Your task to perform on an android device: turn off picture-in-picture Image 0: 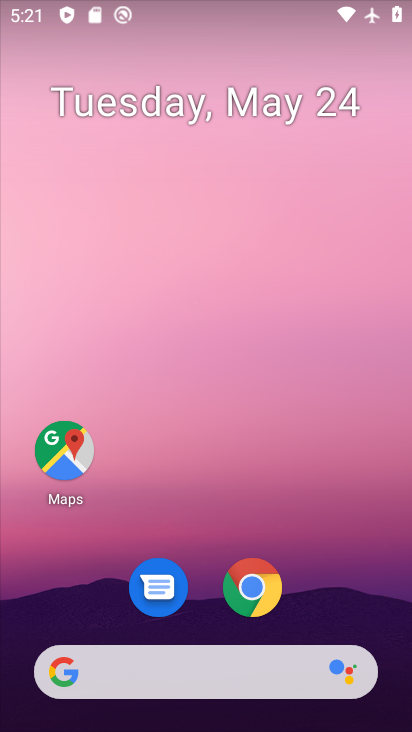
Step 0: drag from (354, 595) to (276, 78)
Your task to perform on an android device: turn off picture-in-picture Image 1: 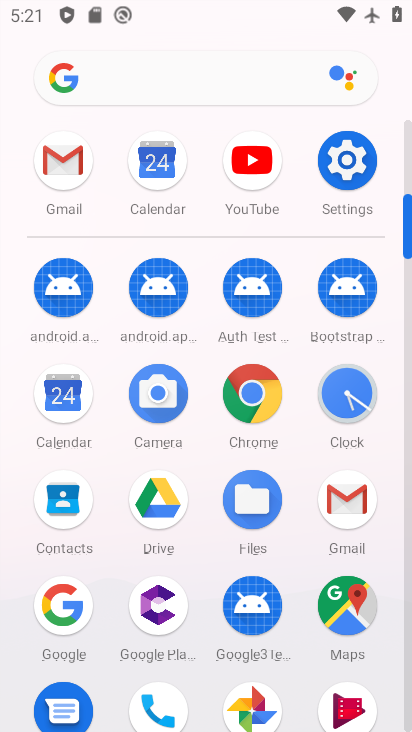
Step 1: click (358, 177)
Your task to perform on an android device: turn off picture-in-picture Image 2: 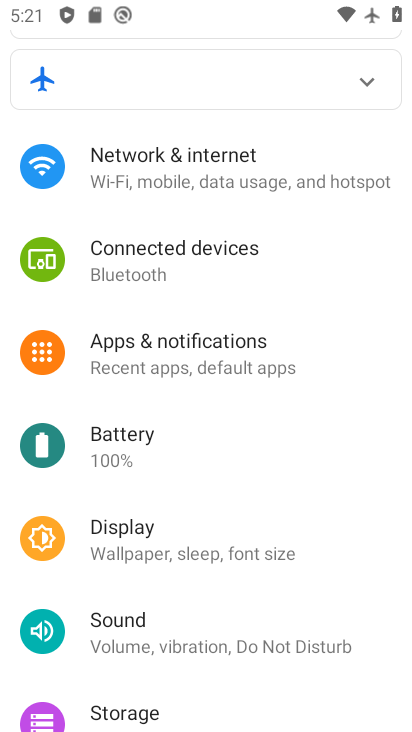
Step 2: click (226, 362)
Your task to perform on an android device: turn off picture-in-picture Image 3: 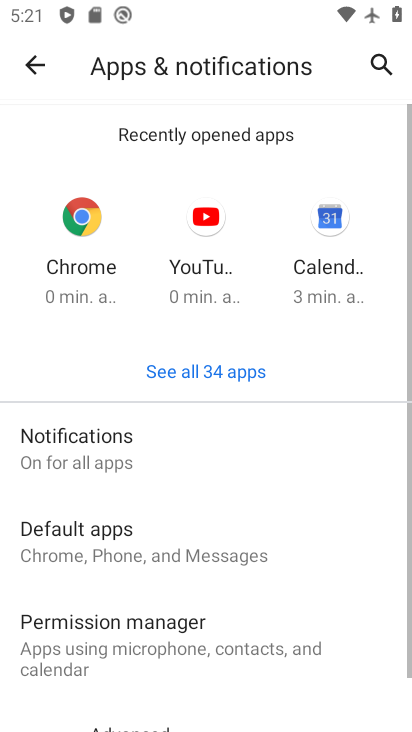
Step 3: drag from (265, 630) to (256, 196)
Your task to perform on an android device: turn off picture-in-picture Image 4: 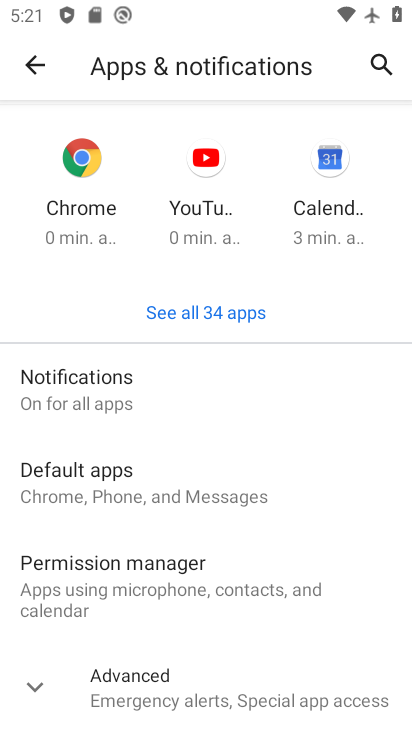
Step 4: click (218, 690)
Your task to perform on an android device: turn off picture-in-picture Image 5: 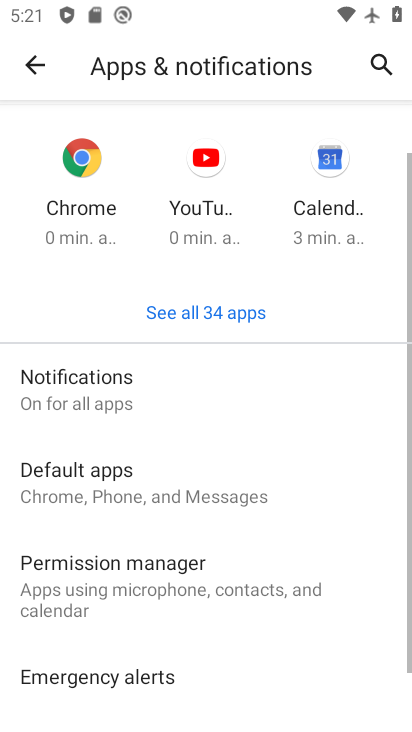
Step 5: drag from (231, 683) to (127, 109)
Your task to perform on an android device: turn off picture-in-picture Image 6: 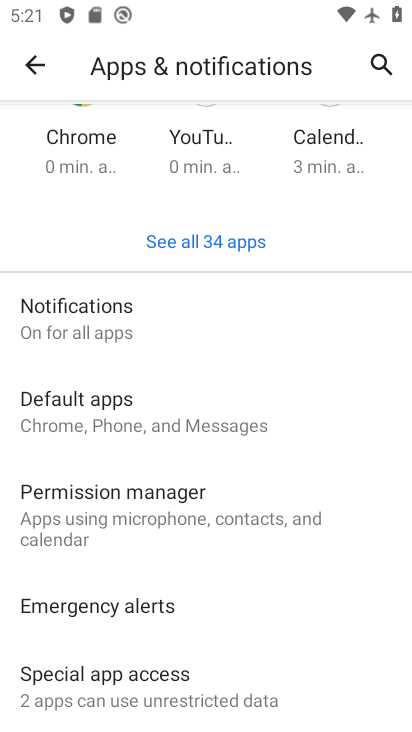
Step 6: click (208, 692)
Your task to perform on an android device: turn off picture-in-picture Image 7: 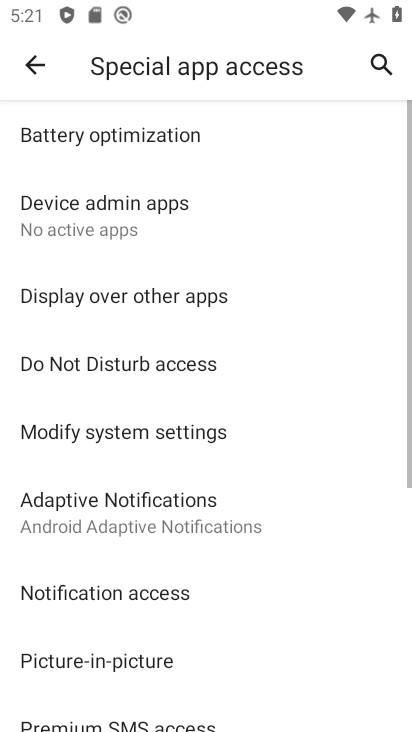
Step 7: drag from (240, 672) to (163, 161)
Your task to perform on an android device: turn off picture-in-picture Image 8: 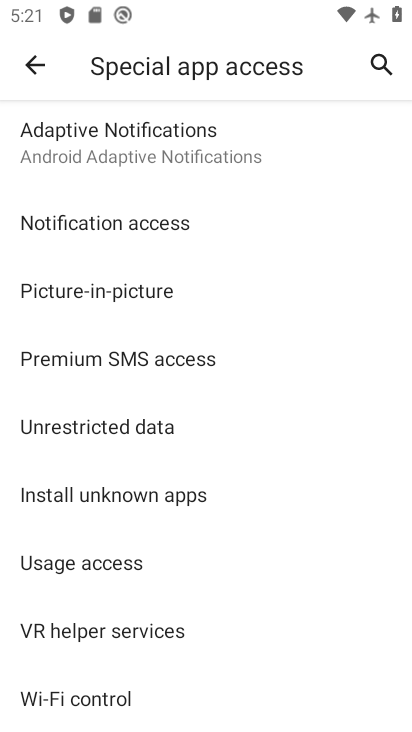
Step 8: click (91, 298)
Your task to perform on an android device: turn off picture-in-picture Image 9: 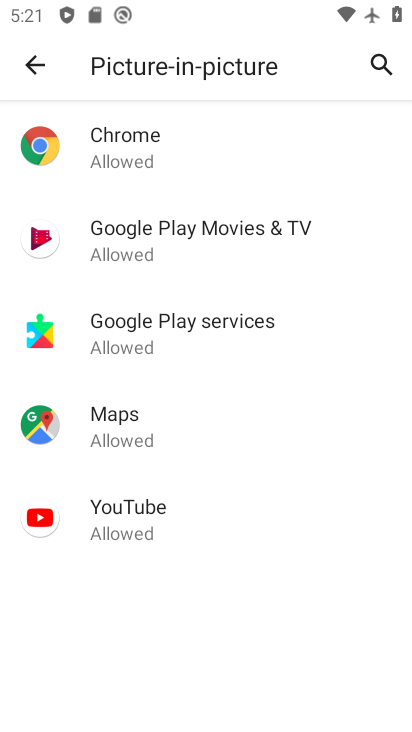
Step 9: click (210, 147)
Your task to perform on an android device: turn off picture-in-picture Image 10: 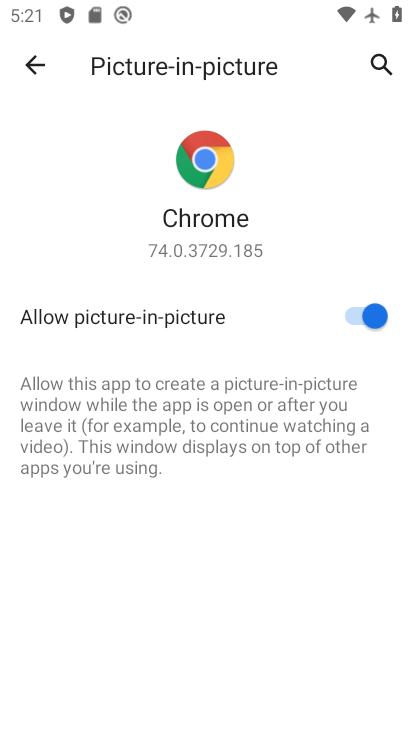
Step 10: click (346, 303)
Your task to perform on an android device: turn off picture-in-picture Image 11: 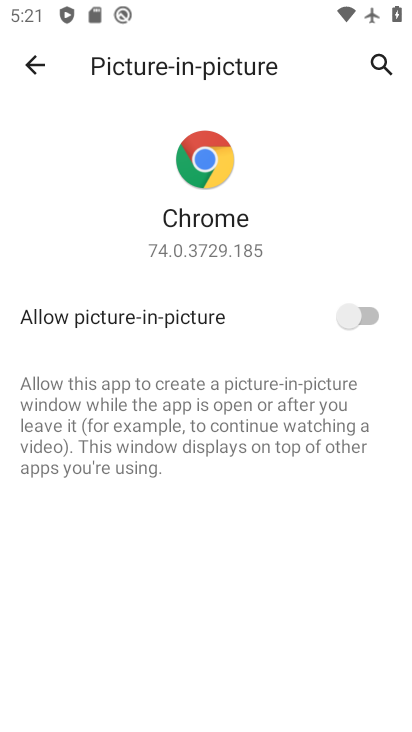
Step 11: task complete